Your task to perform on an android device: Go to Google maps Image 0: 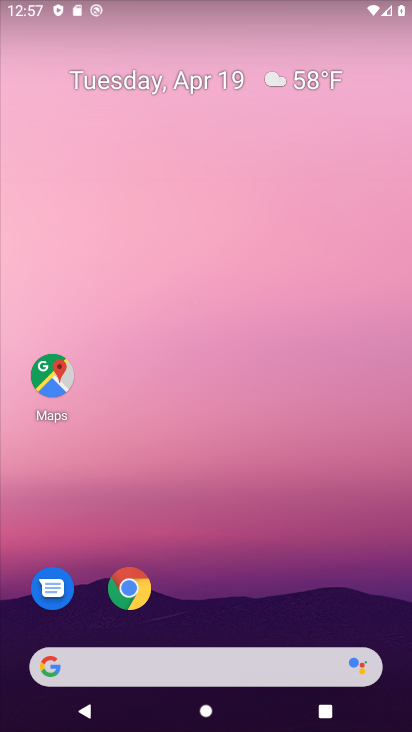
Step 0: click (50, 366)
Your task to perform on an android device: Go to Google maps Image 1: 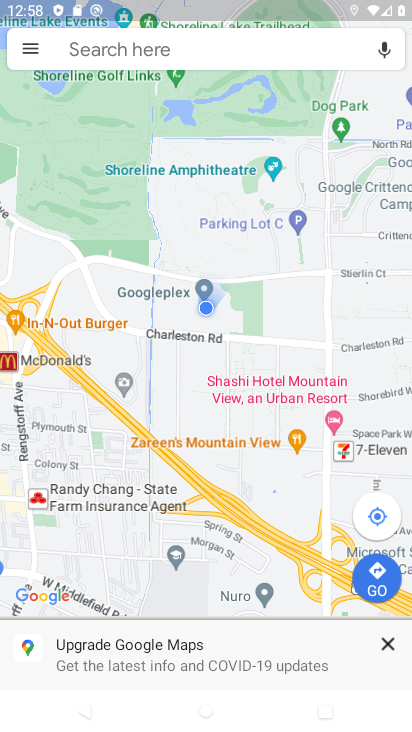
Step 1: task complete